Your task to perform on an android device: Open settings Image 0: 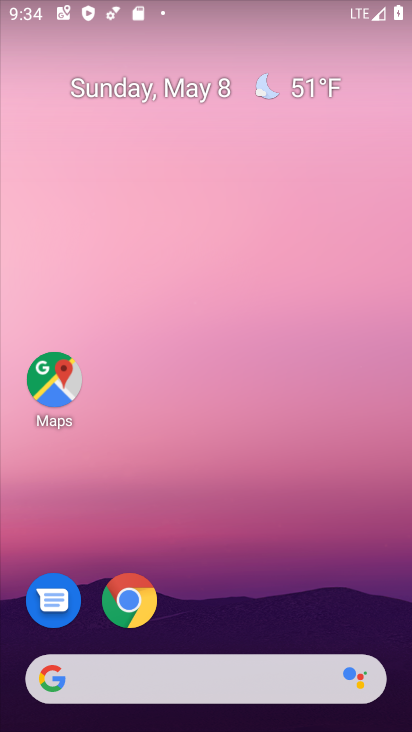
Step 0: drag from (356, 617) to (377, 11)
Your task to perform on an android device: Open settings Image 1: 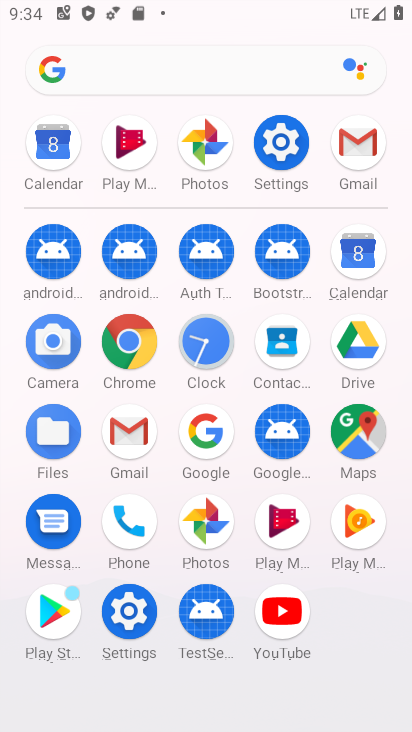
Step 1: click (274, 153)
Your task to perform on an android device: Open settings Image 2: 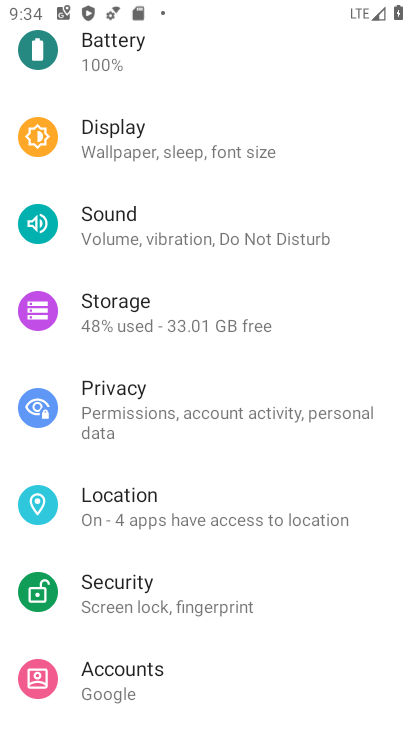
Step 2: task complete